Your task to perform on an android device: Open the web browser Image 0: 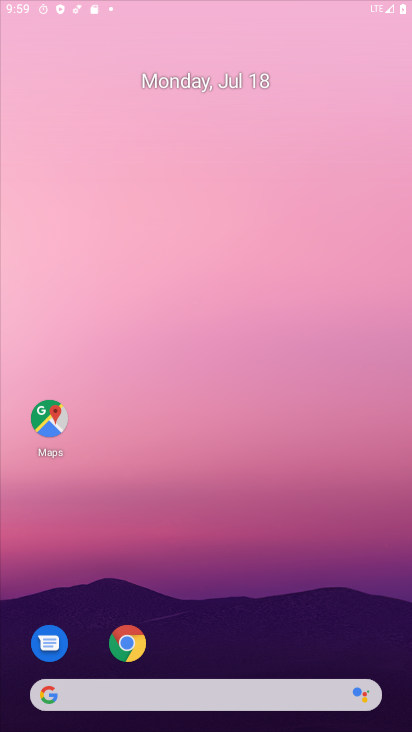
Step 0: press home button
Your task to perform on an android device: Open the web browser Image 1: 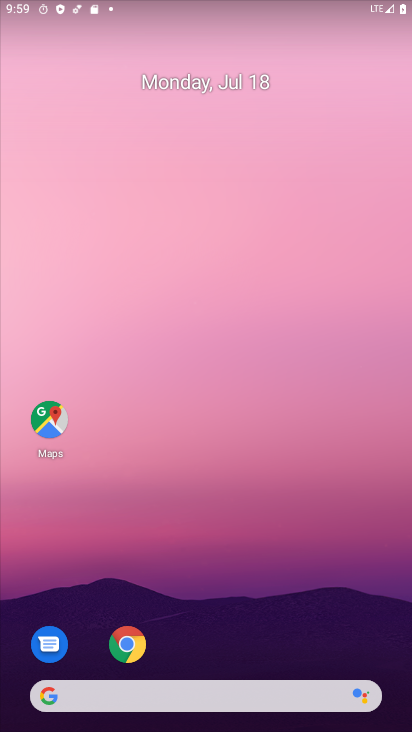
Step 1: click (127, 640)
Your task to perform on an android device: Open the web browser Image 2: 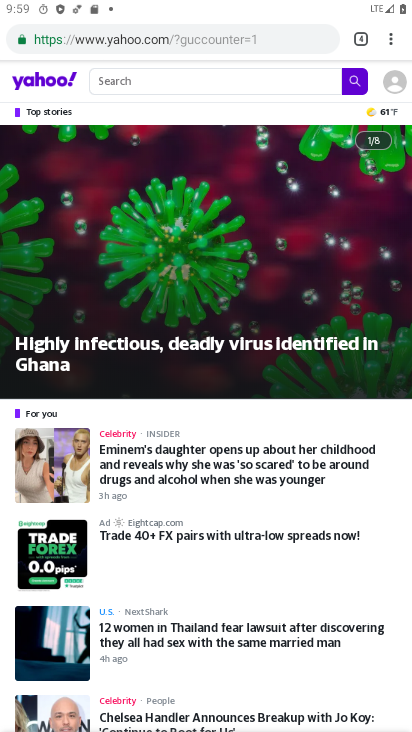
Step 2: task complete